Your task to perform on an android device: Check the weather Image 0: 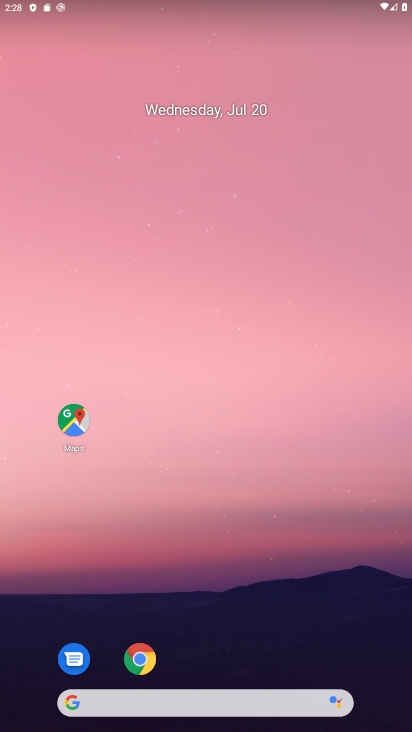
Step 0: drag from (204, 648) to (248, 111)
Your task to perform on an android device: Check the weather Image 1: 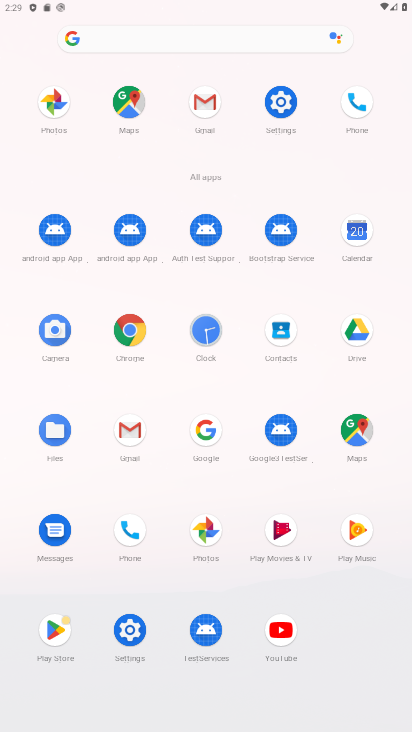
Step 1: click (210, 437)
Your task to perform on an android device: Check the weather Image 2: 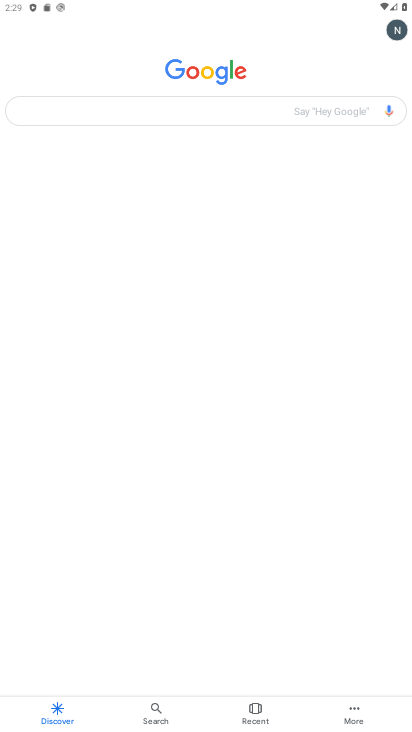
Step 2: click (158, 112)
Your task to perform on an android device: Check the weather Image 3: 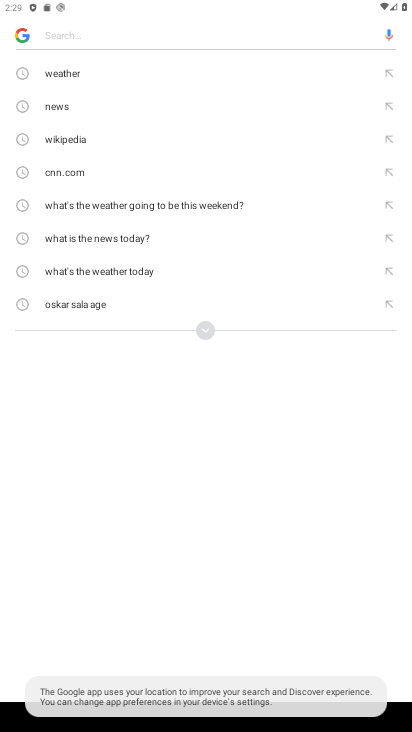
Step 3: click (83, 71)
Your task to perform on an android device: Check the weather Image 4: 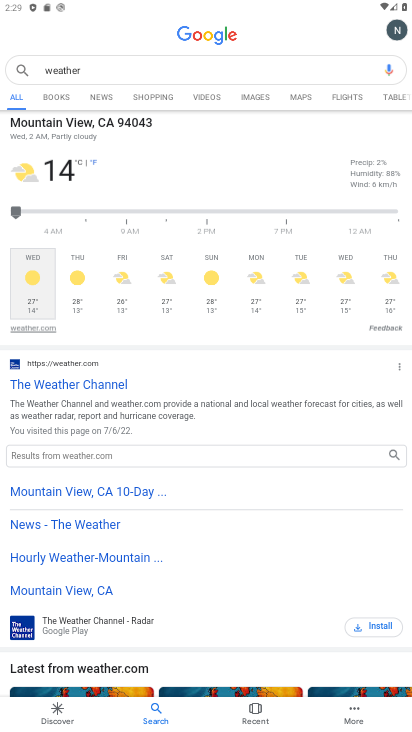
Step 4: task complete